Your task to perform on an android device: Toggle the flashlight Image 0: 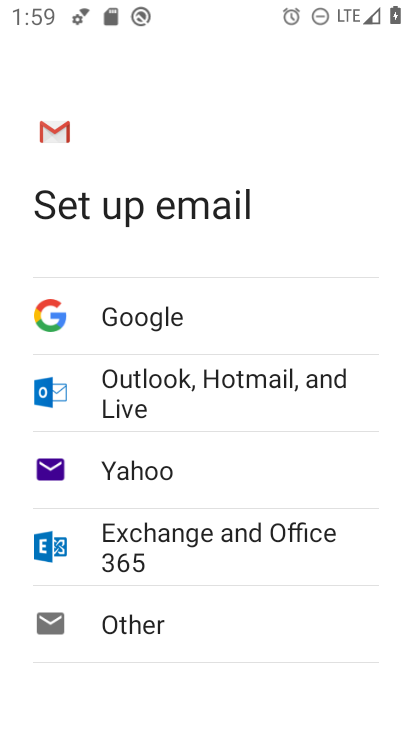
Step 0: press home button
Your task to perform on an android device: Toggle the flashlight Image 1: 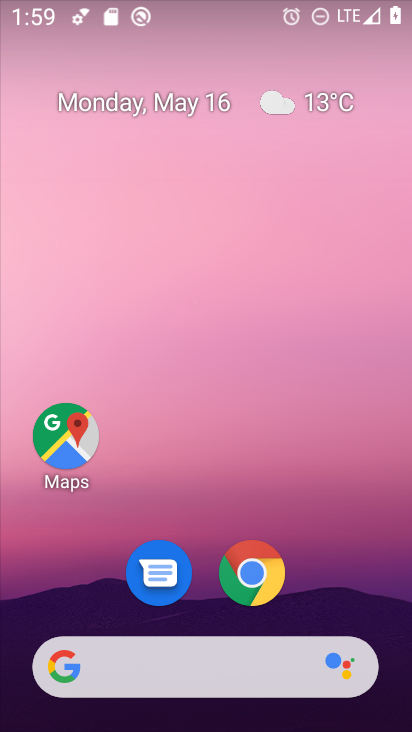
Step 1: task complete